Your task to perform on an android device: Turn on the flashlight Image 0: 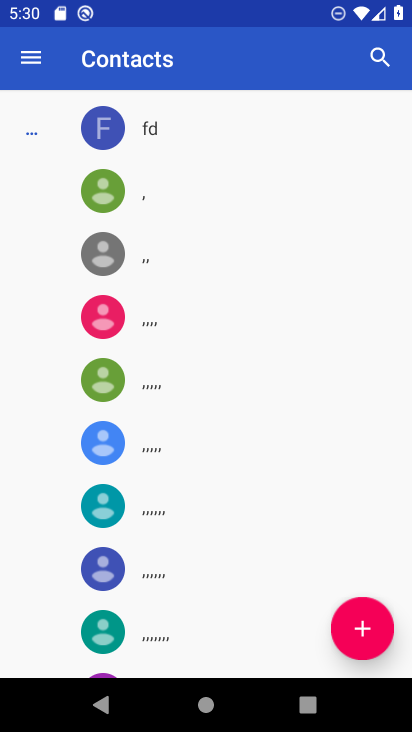
Step 0: press home button
Your task to perform on an android device: Turn on the flashlight Image 1: 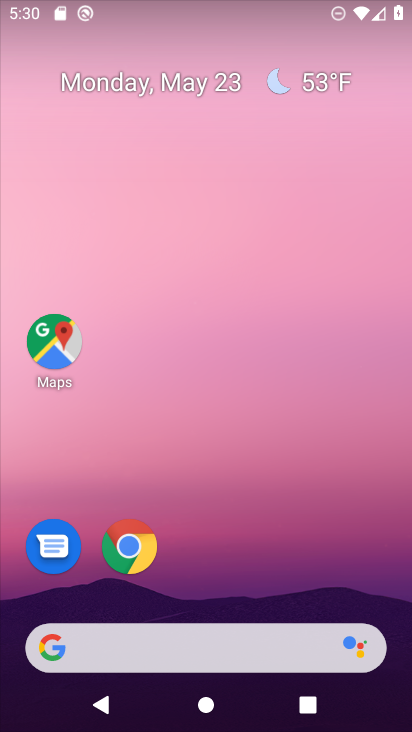
Step 1: drag from (251, 600) to (260, 14)
Your task to perform on an android device: Turn on the flashlight Image 2: 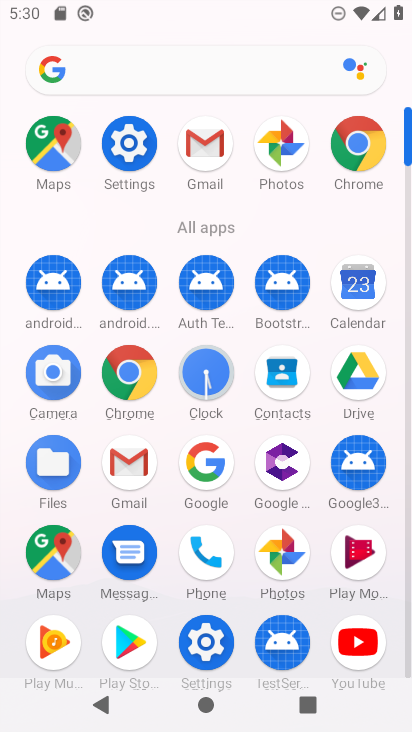
Step 2: click (125, 141)
Your task to perform on an android device: Turn on the flashlight Image 3: 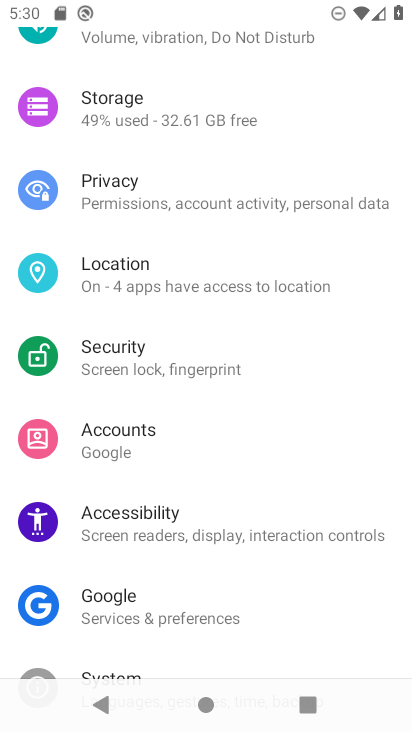
Step 3: drag from (292, 187) to (301, 559)
Your task to perform on an android device: Turn on the flashlight Image 4: 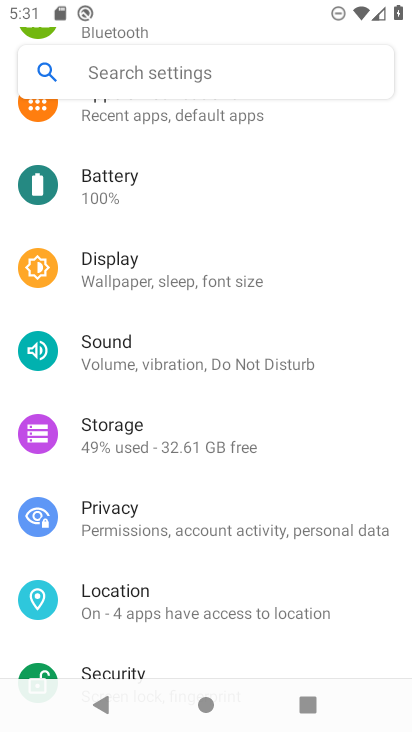
Step 4: drag from (297, 191) to (244, 518)
Your task to perform on an android device: Turn on the flashlight Image 5: 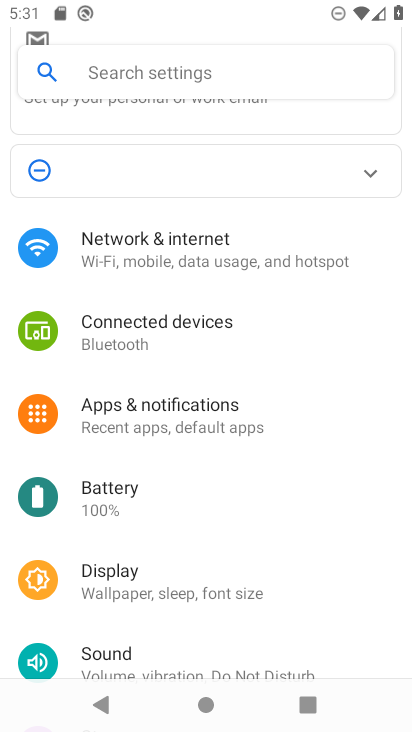
Step 5: click (185, 418)
Your task to perform on an android device: Turn on the flashlight Image 6: 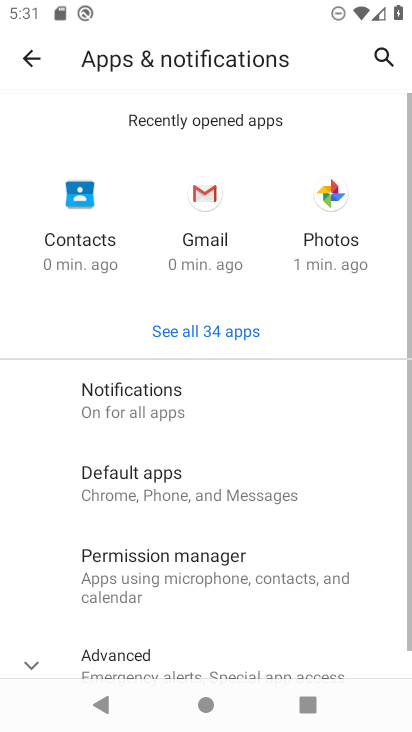
Step 6: drag from (270, 624) to (261, 284)
Your task to perform on an android device: Turn on the flashlight Image 7: 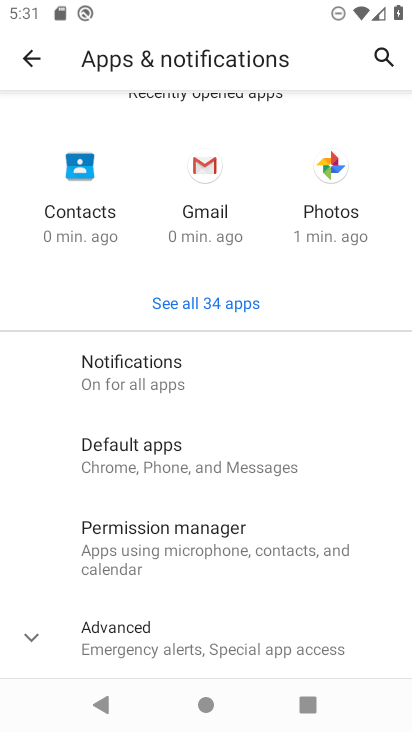
Step 7: click (179, 640)
Your task to perform on an android device: Turn on the flashlight Image 8: 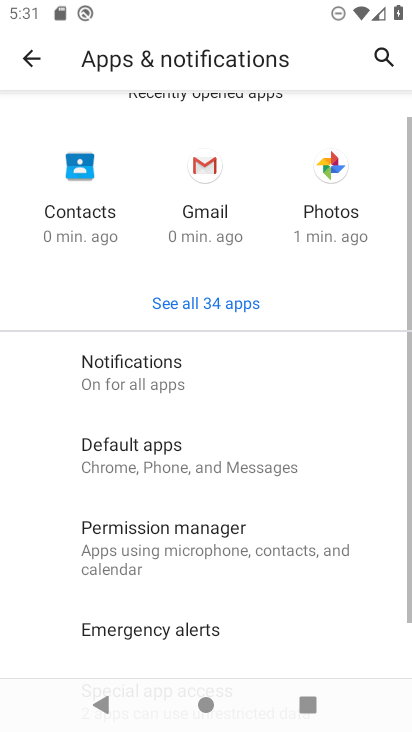
Step 8: drag from (179, 636) to (178, 367)
Your task to perform on an android device: Turn on the flashlight Image 9: 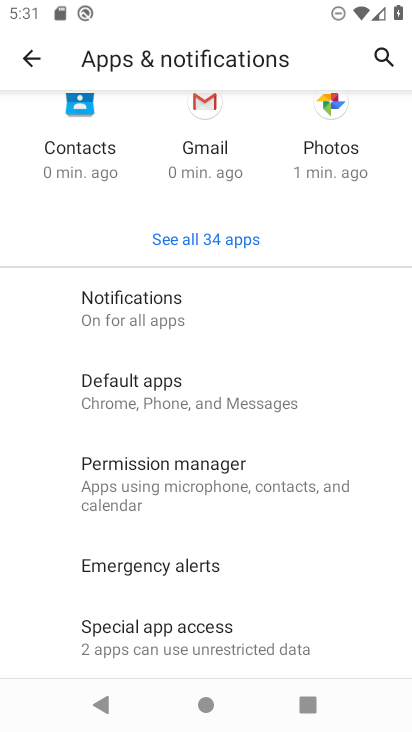
Step 9: click (174, 647)
Your task to perform on an android device: Turn on the flashlight Image 10: 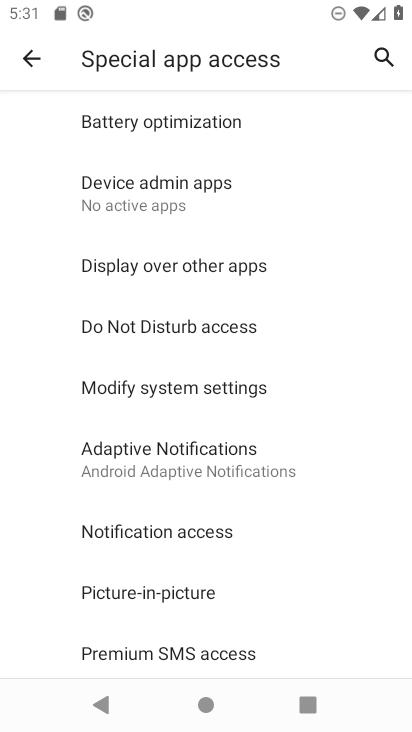
Step 10: task complete